Your task to perform on an android device: see creations saved in the google photos Image 0: 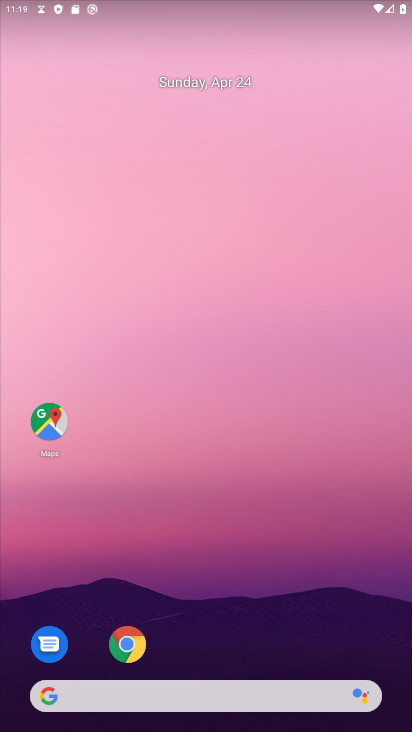
Step 0: drag from (351, 650) to (390, 66)
Your task to perform on an android device: see creations saved in the google photos Image 1: 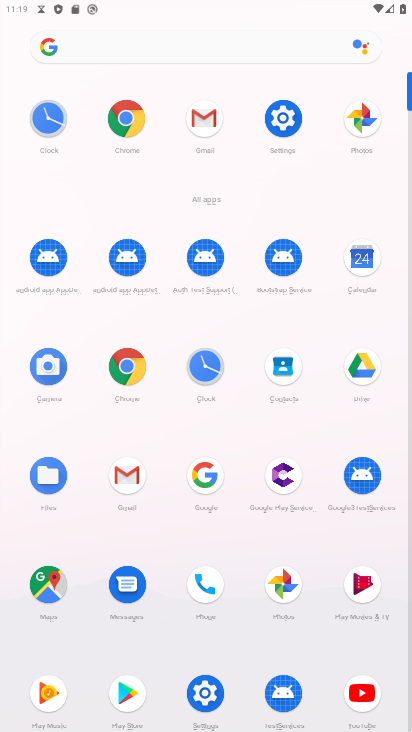
Step 1: click (358, 124)
Your task to perform on an android device: see creations saved in the google photos Image 2: 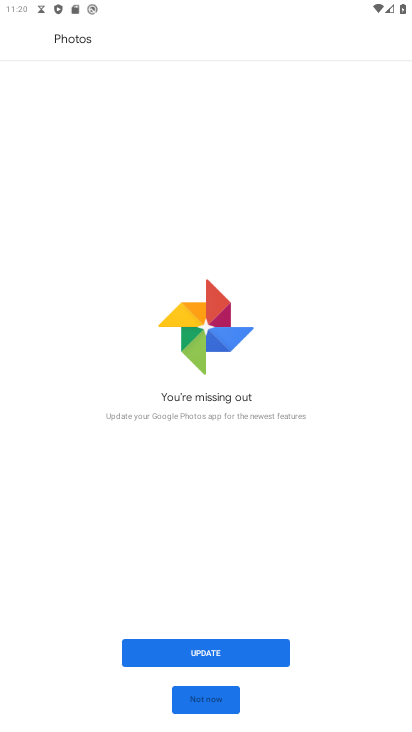
Step 2: click (206, 710)
Your task to perform on an android device: see creations saved in the google photos Image 3: 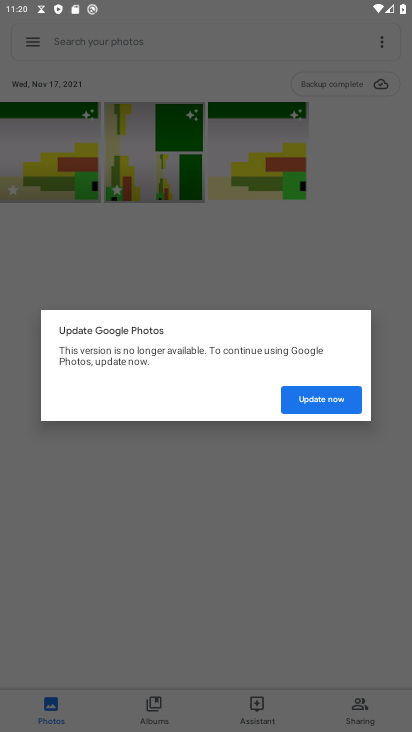
Step 3: click (312, 395)
Your task to perform on an android device: see creations saved in the google photos Image 4: 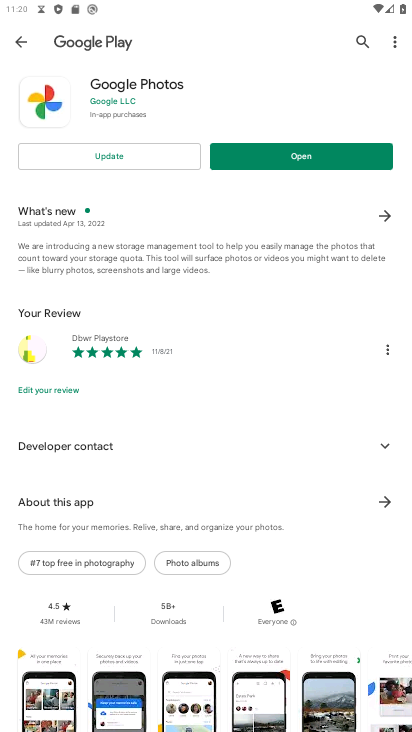
Step 4: click (307, 159)
Your task to perform on an android device: see creations saved in the google photos Image 5: 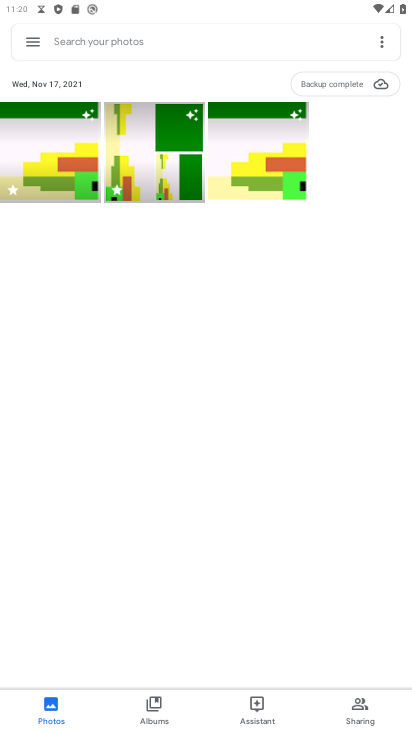
Step 5: click (88, 43)
Your task to perform on an android device: see creations saved in the google photos Image 6: 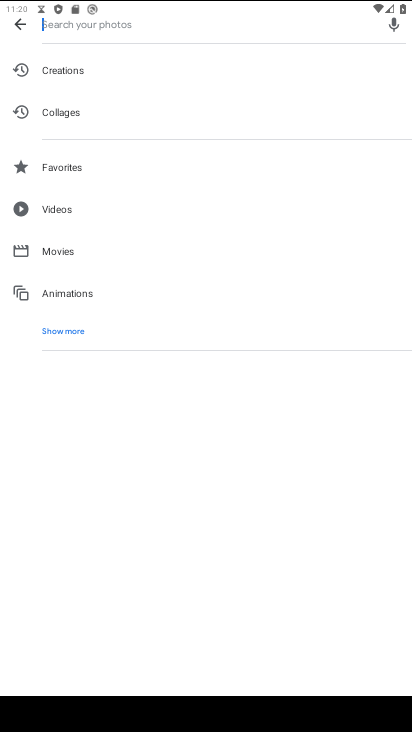
Step 6: click (66, 329)
Your task to perform on an android device: see creations saved in the google photos Image 7: 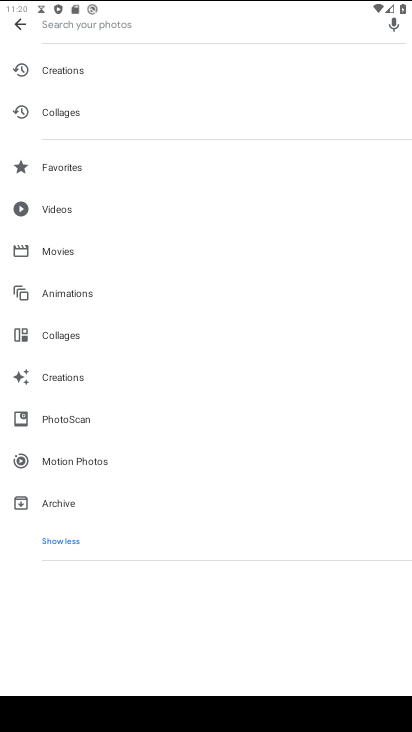
Step 7: click (72, 70)
Your task to perform on an android device: see creations saved in the google photos Image 8: 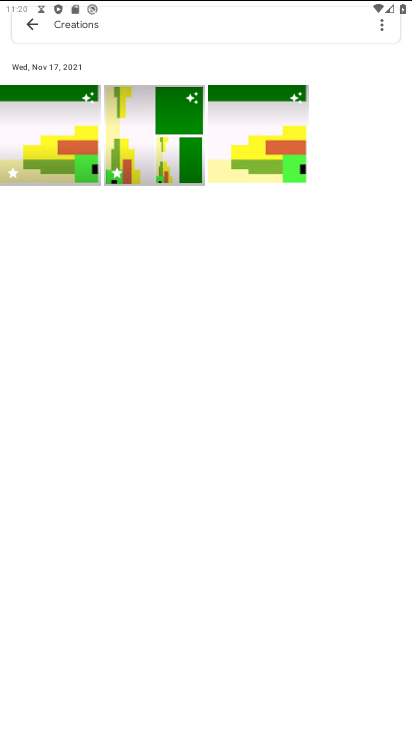
Step 8: task complete